Your task to perform on an android device: turn on notifications settings in the gmail app Image 0: 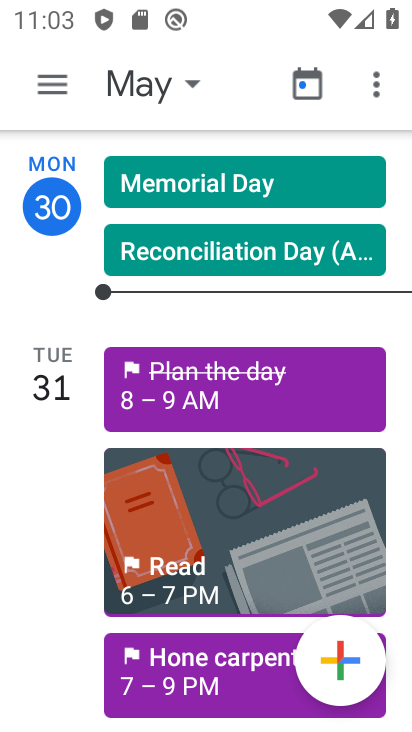
Step 0: task complete